Your task to perform on an android device: allow cookies in the chrome app Image 0: 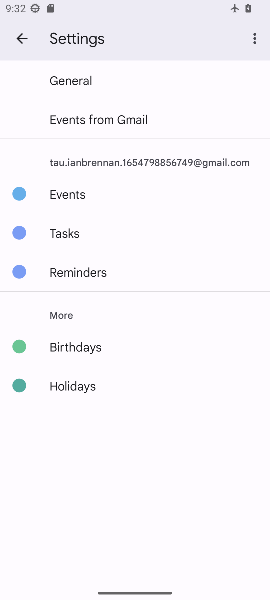
Step 0: press home button
Your task to perform on an android device: allow cookies in the chrome app Image 1: 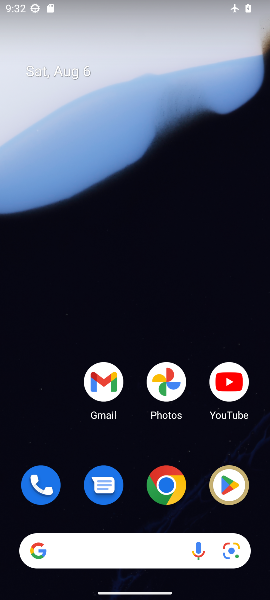
Step 1: drag from (186, 443) to (178, 53)
Your task to perform on an android device: allow cookies in the chrome app Image 2: 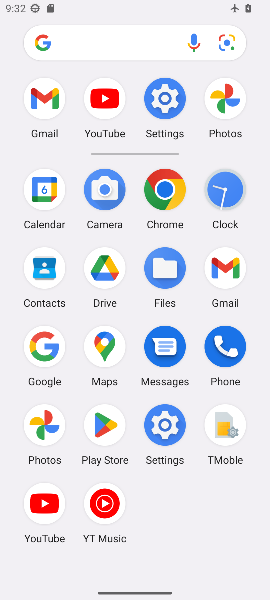
Step 2: click (163, 189)
Your task to perform on an android device: allow cookies in the chrome app Image 3: 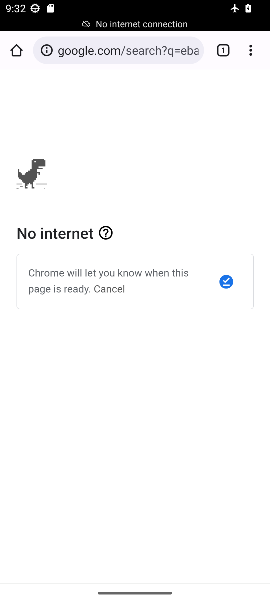
Step 3: click (257, 46)
Your task to perform on an android device: allow cookies in the chrome app Image 4: 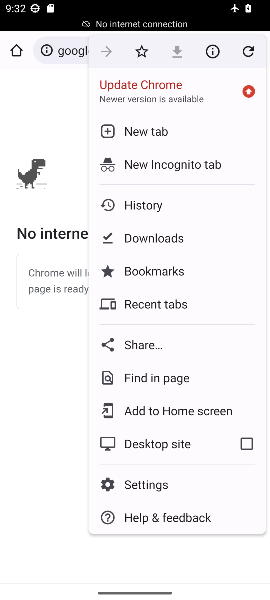
Step 4: click (145, 484)
Your task to perform on an android device: allow cookies in the chrome app Image 5: 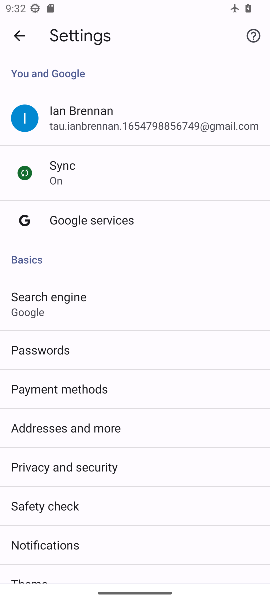
Step 5: drag from (164, 539) to (268, 166)
Your task to perform on an android device: allow cookies in the chrome app Image 6: 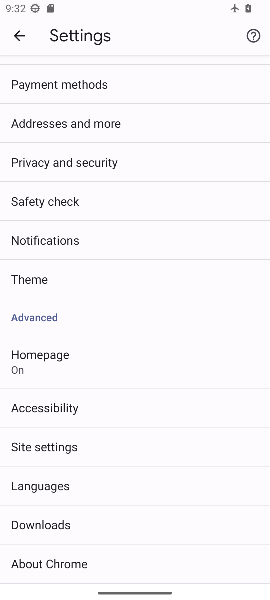
Step 6: click (51, 443)
Your task to perform on an android device: allow cookies in the chrome app Image 7: 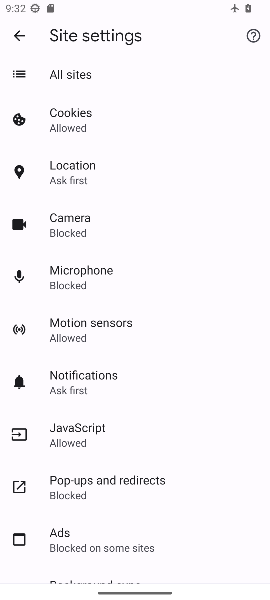
Step 7: click (82, 114)
Your task to perform on an android device: allow cookies in the chrome app Image 8: 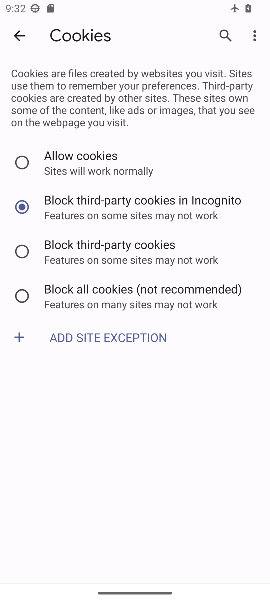
Step 8: click (90, 156)
Your task to perform on an android device: allow cookies in the chrome app Image 9: 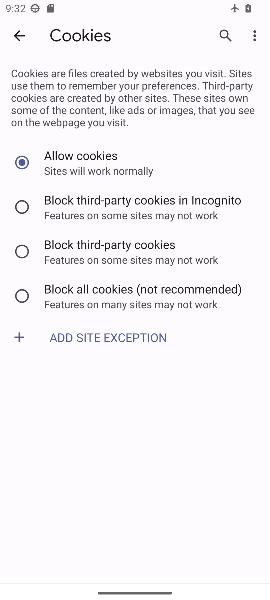
Step 9: task complete